Your task to perform on an android device: Open location settings Image 0: 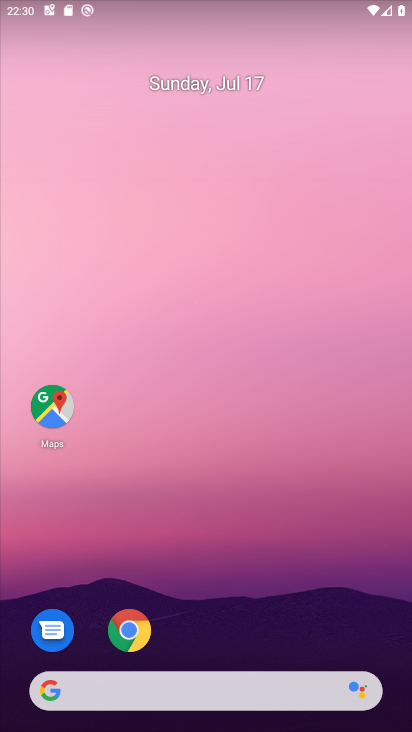
Step 0: drag from (233, 641) to (264, 191)
Your task to perform on an android device: Open location settings Image 1: 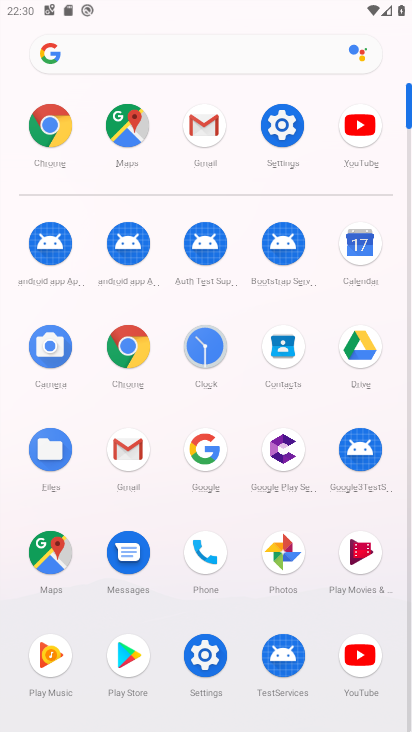
Step 1: click (204, 670)
Your task to perform on an android device: Open location settings Image 2: 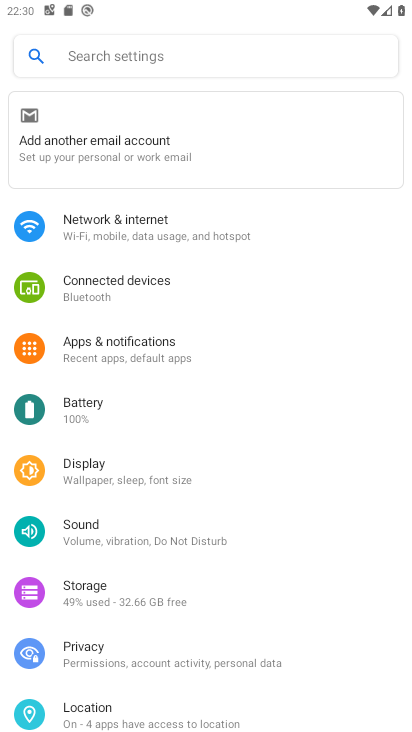
Step 2: drag from (116, 602) to (128, 391)
Your task to perform on an android device: Open location settings Image 3: 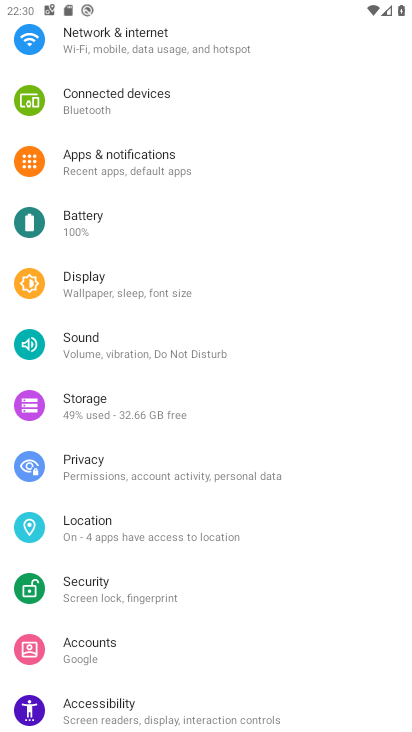
Step 3: click (118, 531)
Your task to perform on an android device: Open location settings Image 4: 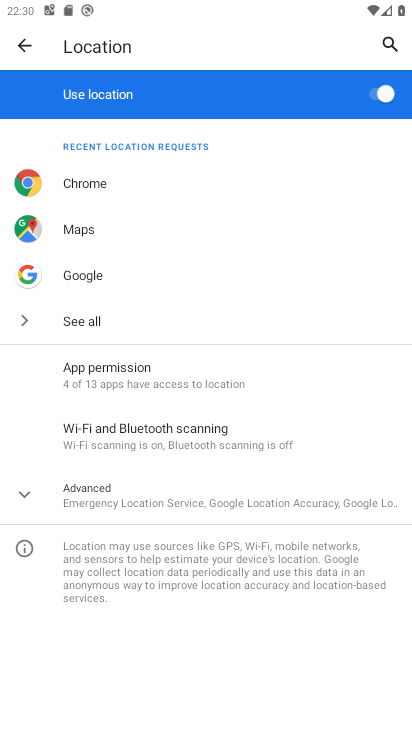
Step 4: task complete